Your task to perform on an android device: Open the stopwatch Image 0: 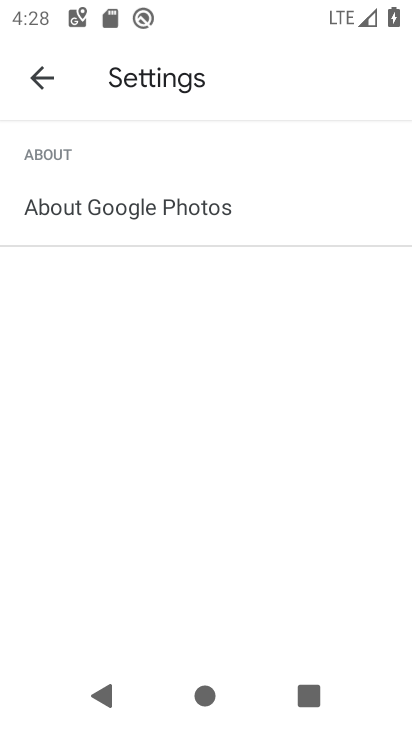
Step 0: press back button
Your task to perform on an android device: Open the stopwatch Image 1: 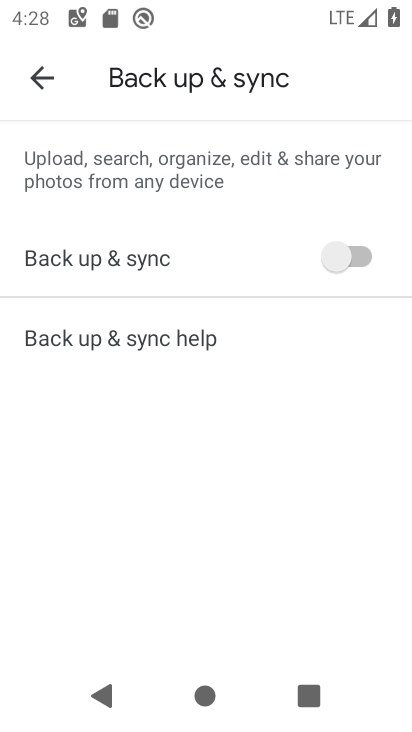
Step 1: press back button
Your task to perform on an android device: Open the stopwatch Image 2: 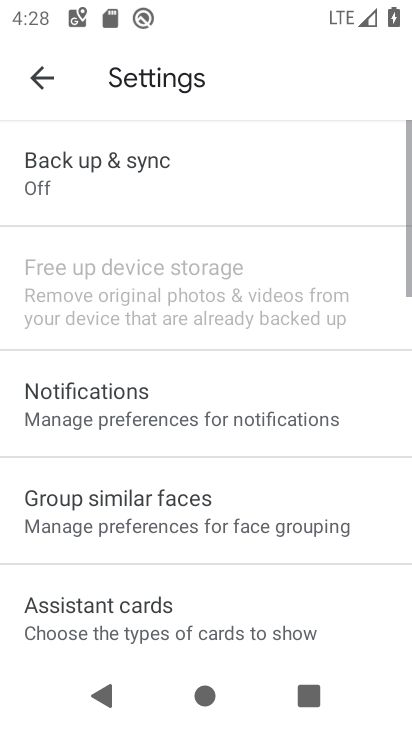
Step 2: press back button
Your task to perform on an android device: Open the stopwatch Image 3: 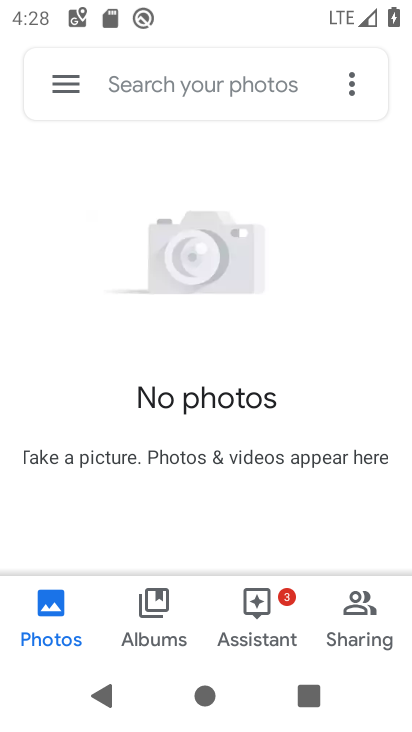
Step 3: press back button
Your task to perform on an android device: Open the stopwatch Image 4: 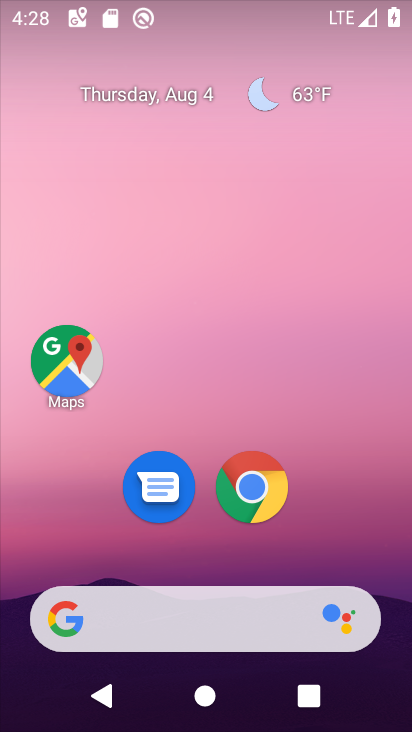
Step 4: drag from (132, 569) to (228, 52)
Your task to perform on an android device: Open the stopwatch Image 5: 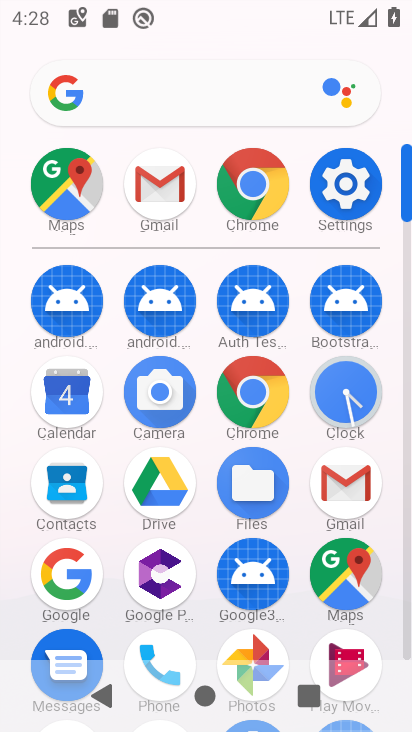
Step 5: click (352, 393)
Your task to perform on an android device: Open the stopwatch Image 6: 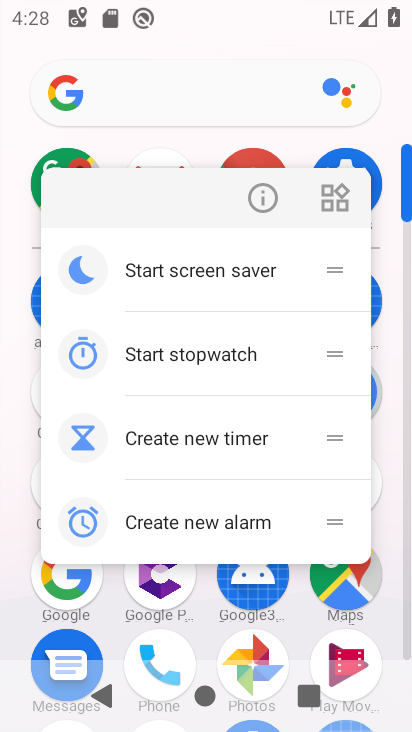
Step 6: click (215, 46)
Your task to perform on an android device: Open the stopwatch Image 7: 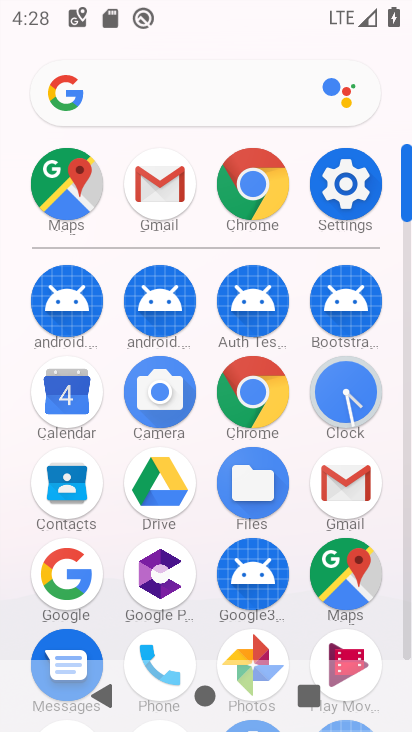
Step 7: click (351, 406)
Your task to perform on an android device: Open the stopwatch Image 8: 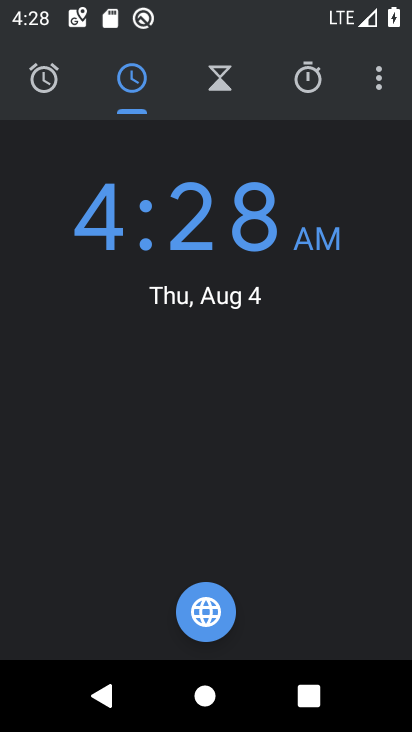
Step 8: click (299, 80)
Your task to perform on an android device: Open the stopwatch Image 9: 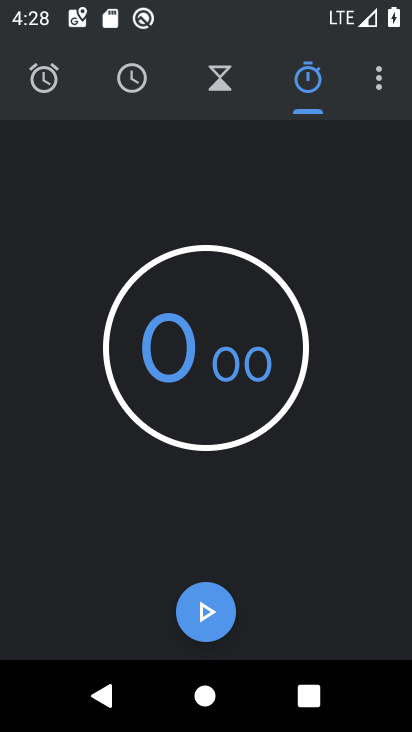
Step 9: task complete